Your task to perform on an android device: Open eBay Image 0: 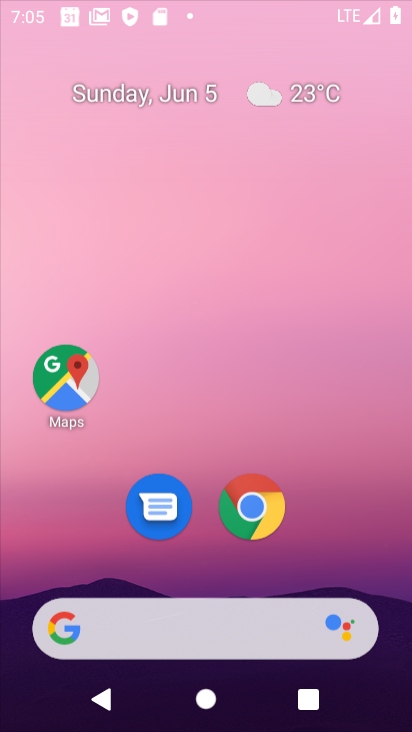
Step 0: click (162, 157)
Your task to perform on an android device: Open eBay Image 1: 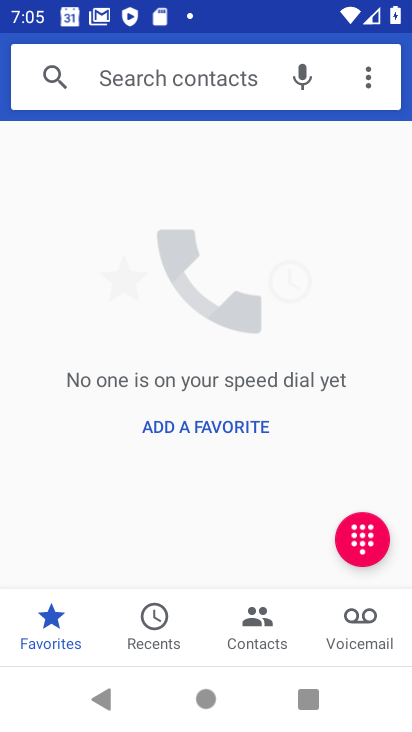
Step 1: press home button
Your task to perform on an android device: Open eBay Image 2: 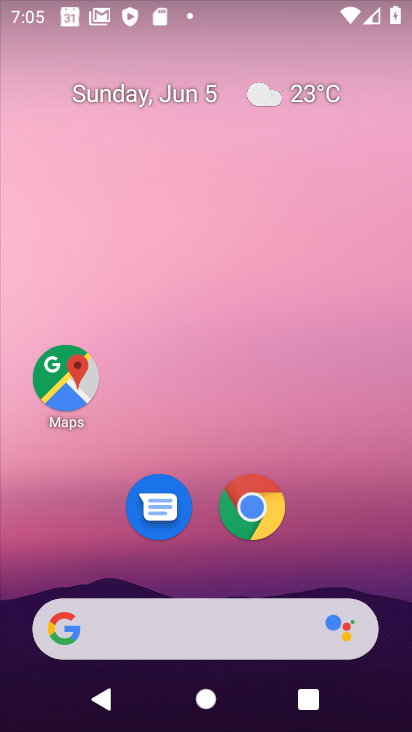
Step 2: drag from (257, 653) to (149, 101)
Your task to perform on an android device: Open eBay Image 3: 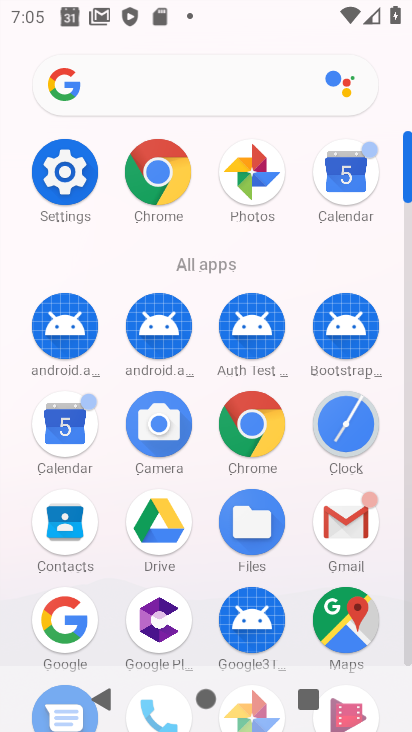
Step 3: click (134, 188)
Your task to perform on an android device: Open eBay Image 4: 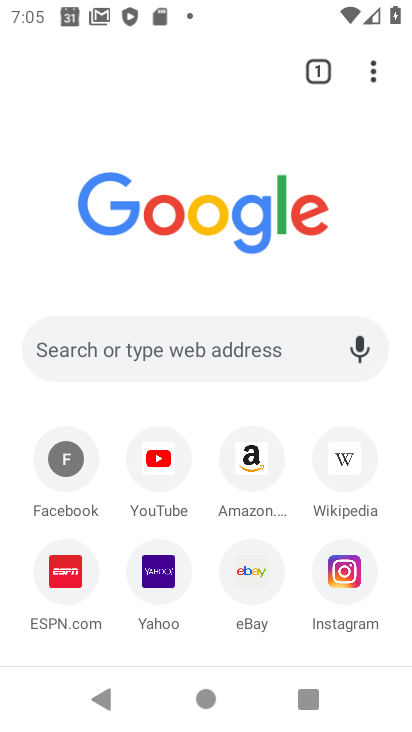
Step 4: click (262, 561)
Your task to perform on an android device: Open eBay Image 5: 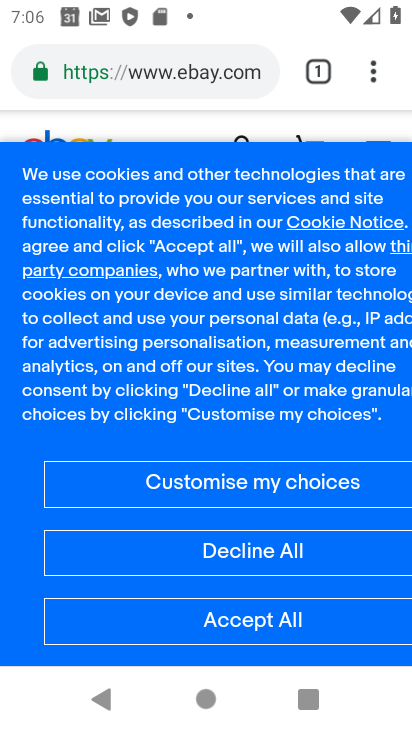
Step 5: click (254, 566)
Your task to perform on an android device: Open eBay Image 6: 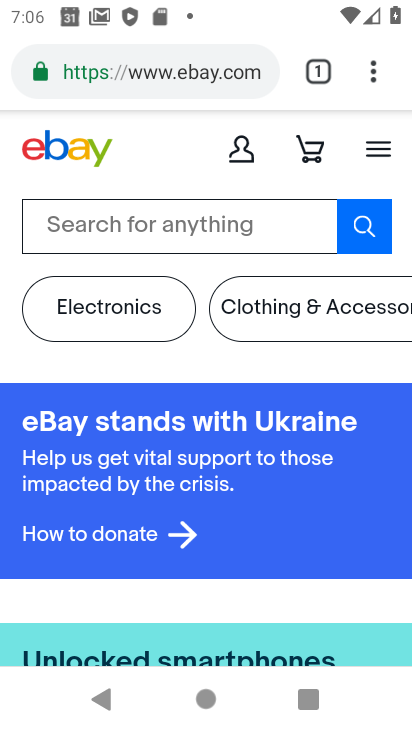
Step 6: task complete